Your task to perform on an android device: visit the assistant section in the google photos Image 0: 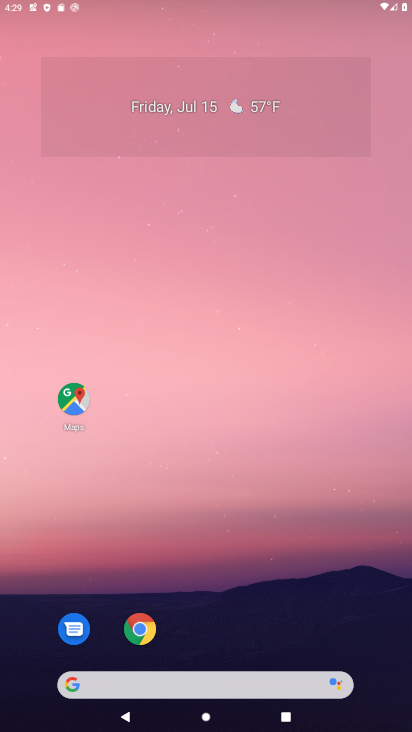
Step 0: press home button
Your task to perform on an android device: visit the assistant section in the google photos Image 1: 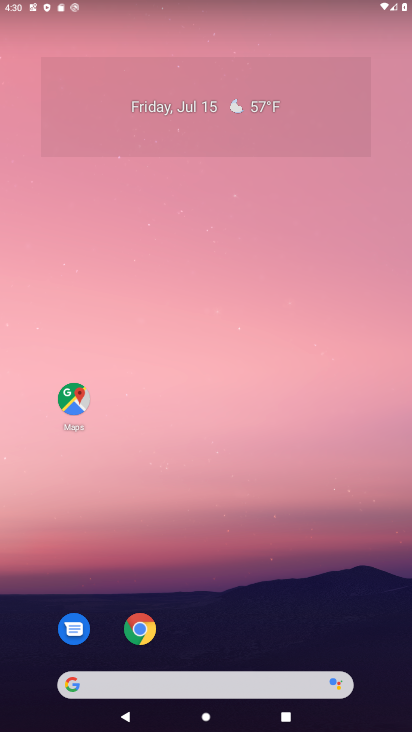
Step 1: drag from (268, 572) to (321, 57)
Your task to perform on an android device: visit the assistant section in the google photos Image 2: 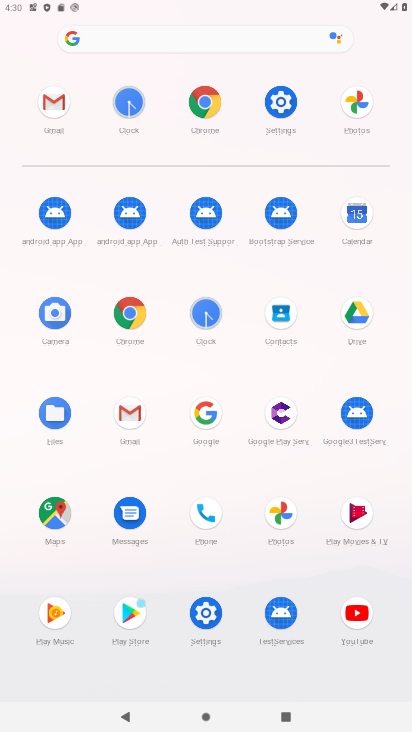
Step 2: click (357, 90)
Your task to perform on an android device: visit the assistant section in the google photos Image 3: 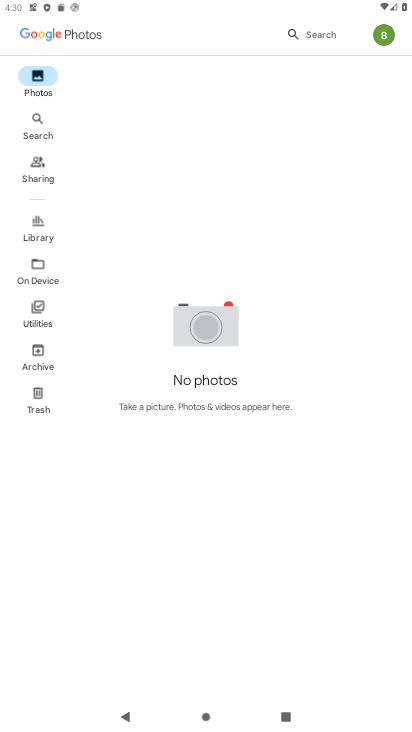
Step 3: task complete